Your task to perform on an android device: open sync settings in chrome Image 0: 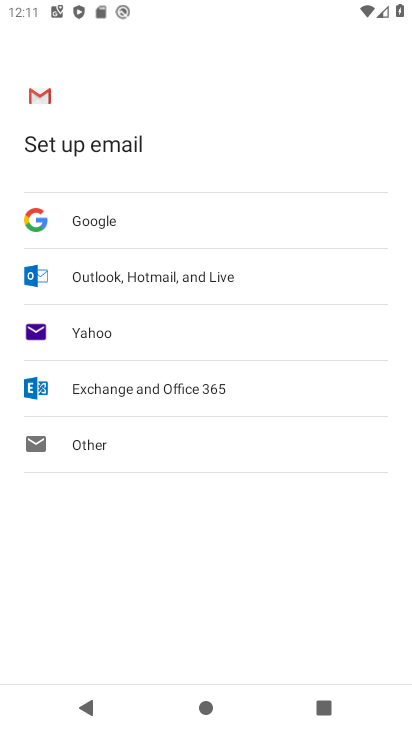
Step 0: press home button
Your task to perform on an android device: open sync settings in chrome Image 1: 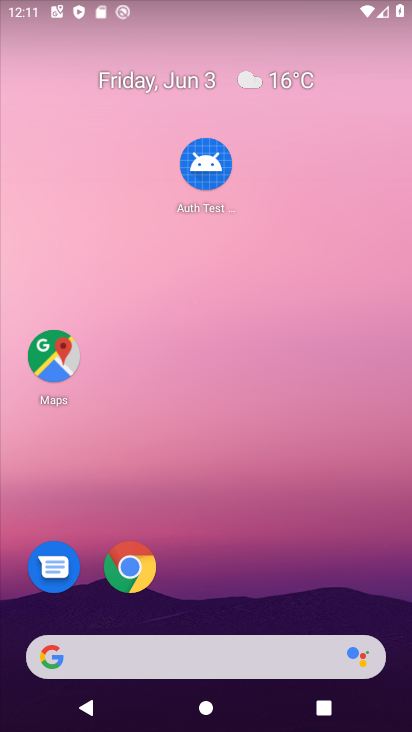
Step 1: click (137, 568)
Your task to perform on an android device: open sync settings in chrome Image 2: 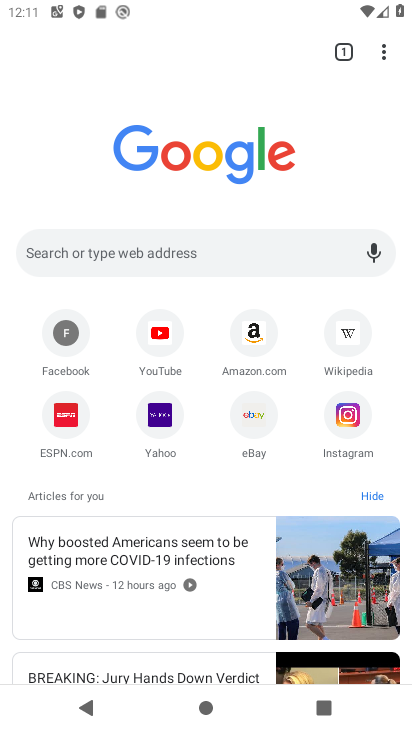
Step 2: click (137, 568)
Your task to perform on an android device: open sync settings in chrome Image 3: 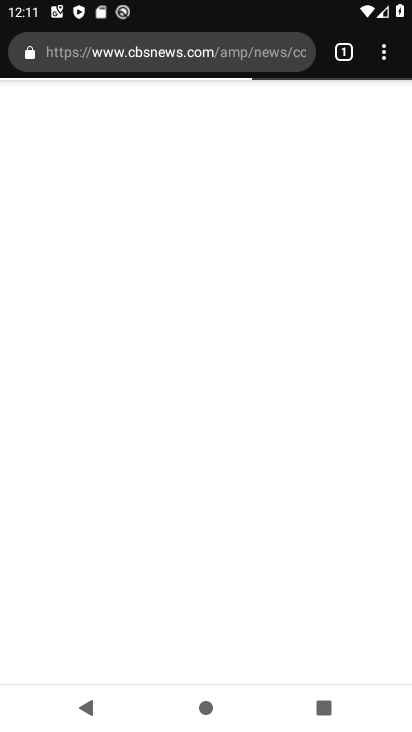
Step 3: click (383, 45)
Your task to perform on an android device: open sync settings in chrome Image 4: 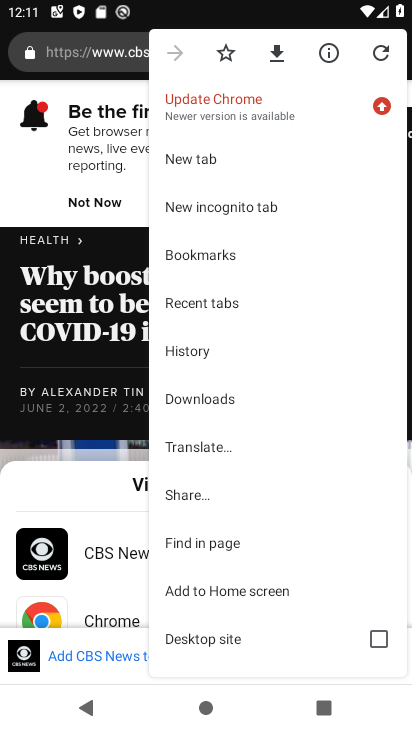
Step 4: drag from (295, 501) to (273, 163)
Your task to perform on an android device: open sync settings in chrome Image 5: 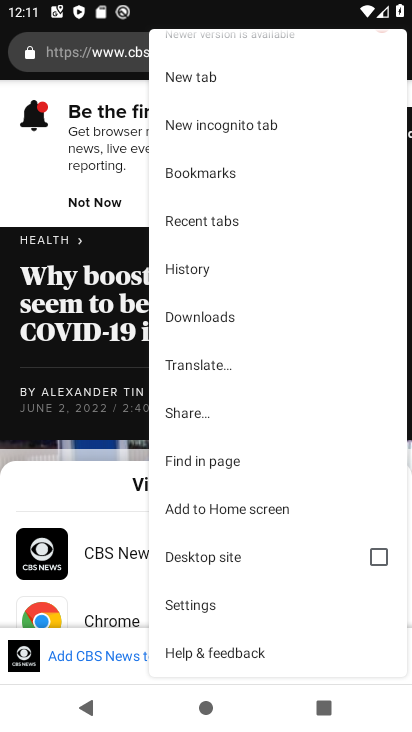
Step 5: click (206, 593)
Your task to perform on an android device: open sync settings in chrome Image 6: 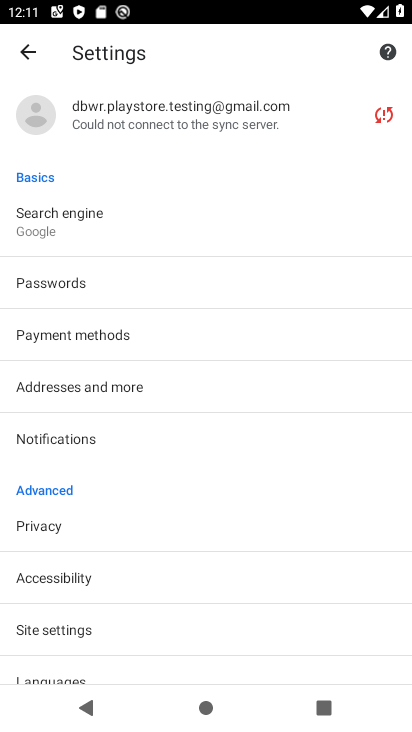
Step 6: click (199, 97)
Your task to perform on an android device: open sync settings in chrome Image 7: 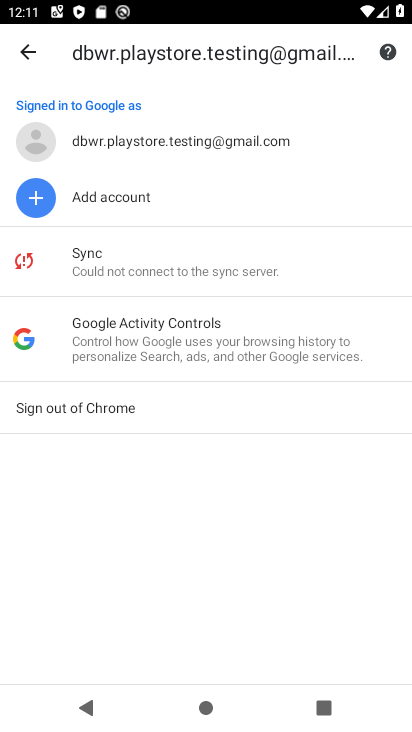
Step 7: click (167, 286)
Your task to perform on an android device: open sync settings in chrome Image 8: 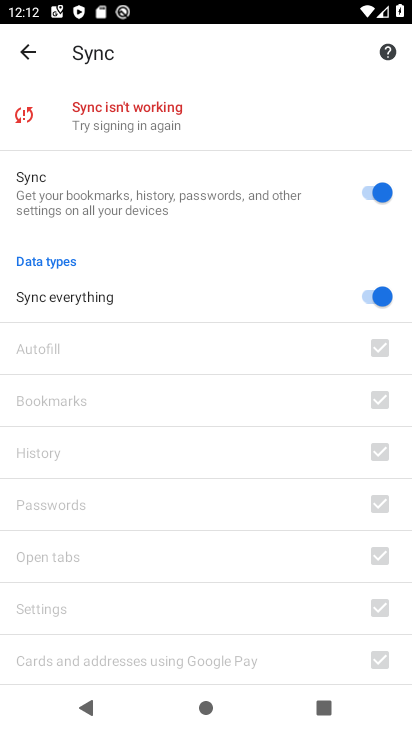
Step 8: task complete